Your task to perform on an android device: install app "Spotify: Music and Podcasts" Image 0: 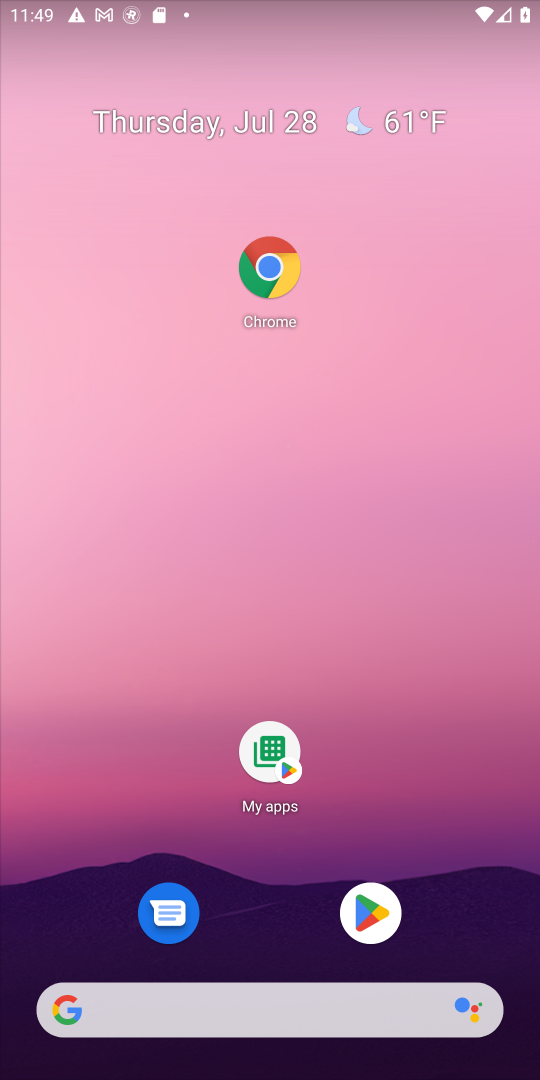
Step 0: press home button
Your task to perform on an android device: install app "Spotify: Music and Podcasts" Image 1: 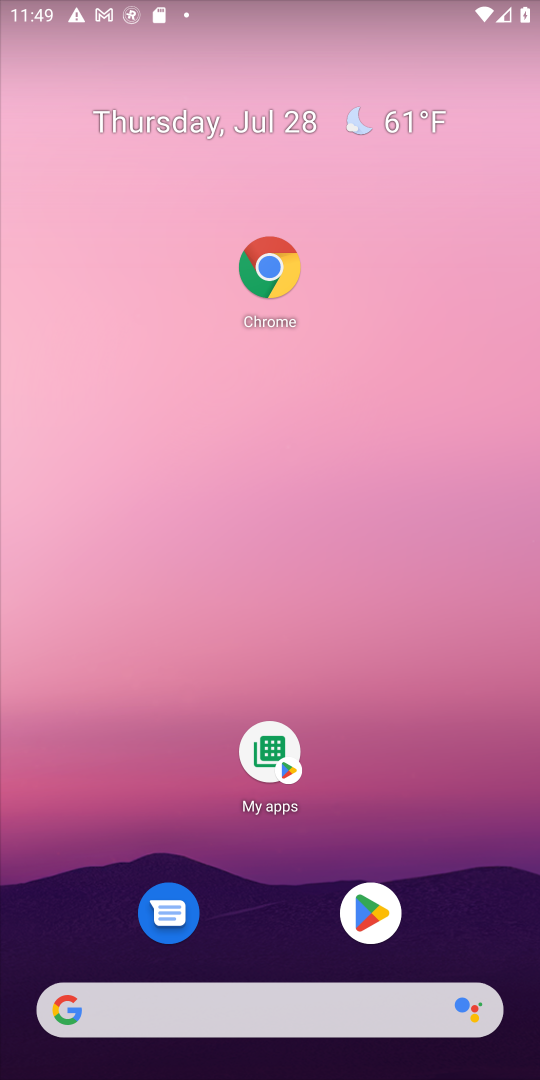
Step 1: click (412, 915)
Your task to perform on an android device: install app "Spotify: Music and Podcasts" Image 2: 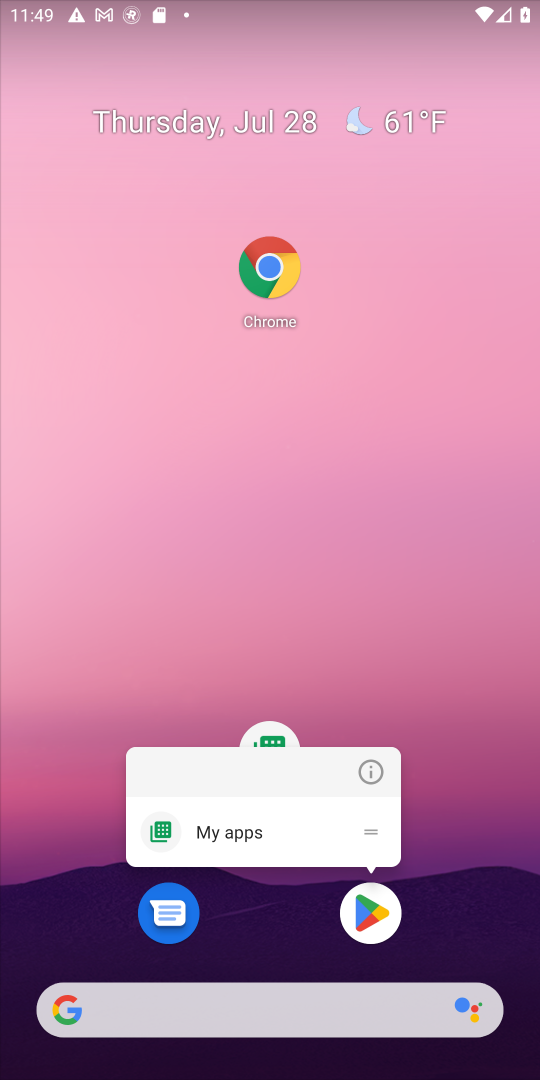
Step 2: click (373, 923)
Your task to perform on an android device: install app "Spotify: Music and Podcasts" Image 3: 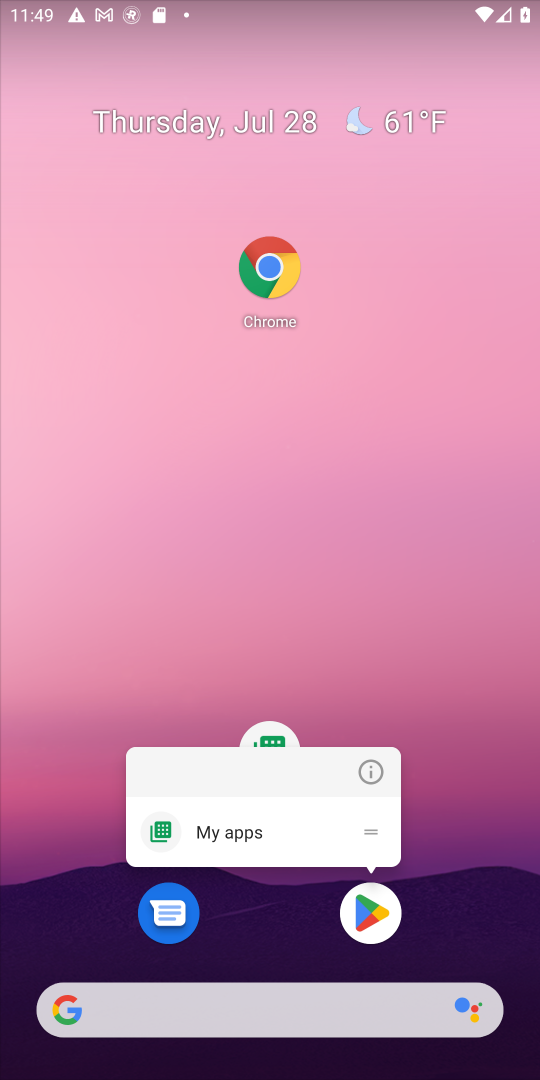
Step 3: click (369, 921)
Your task to perform on an android device: install app "Spotify: Music and Podcasts" Image 4: 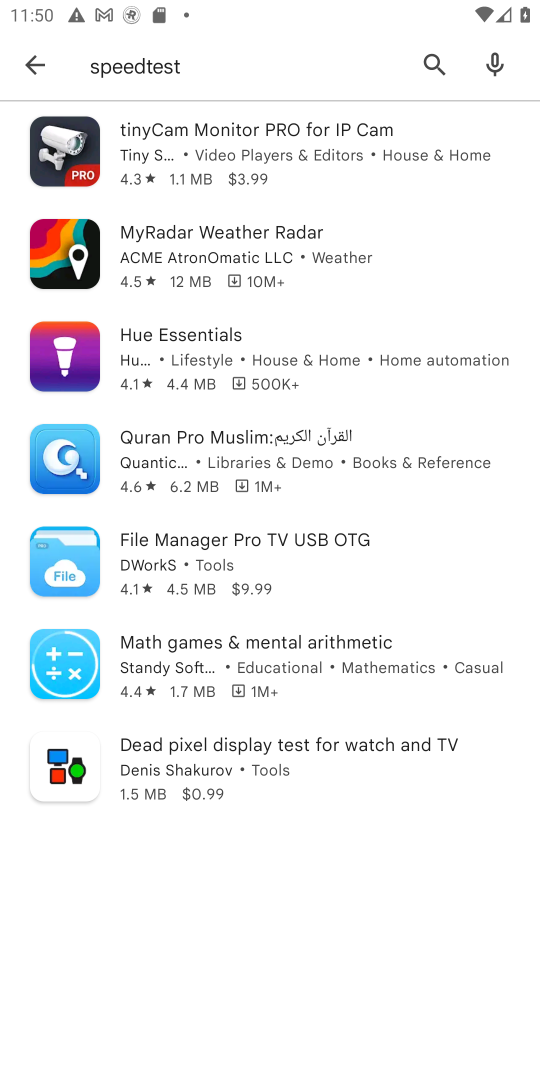
Step 4: click (428, 67)
Your task to perform on an android device: install app "Spotify: Music and Podcasts" Image 5: 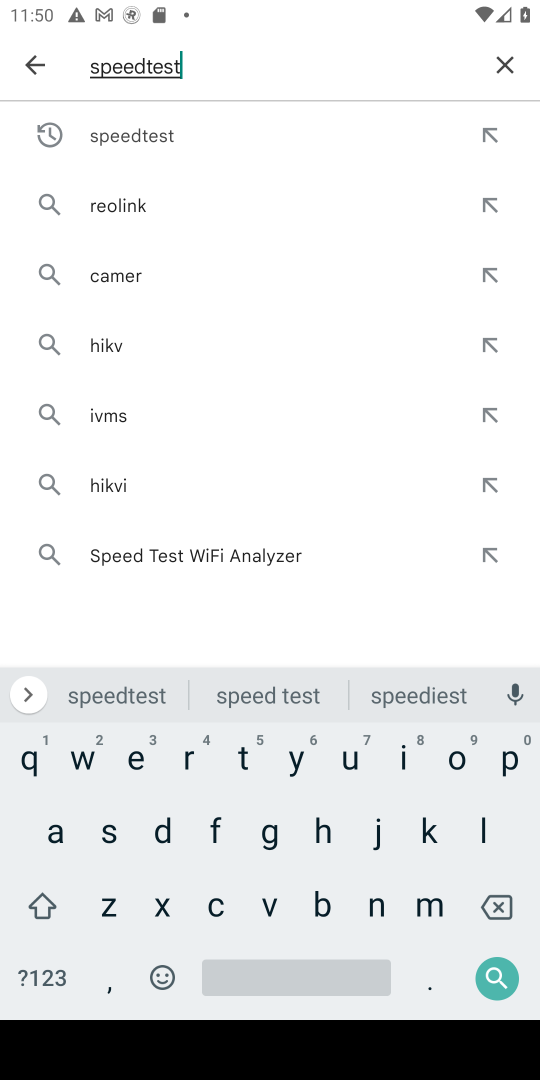
Step 5: click (507, 66)
Your task to perform on an android device: install app "Spotify: Music and Podcasts" Image 6: 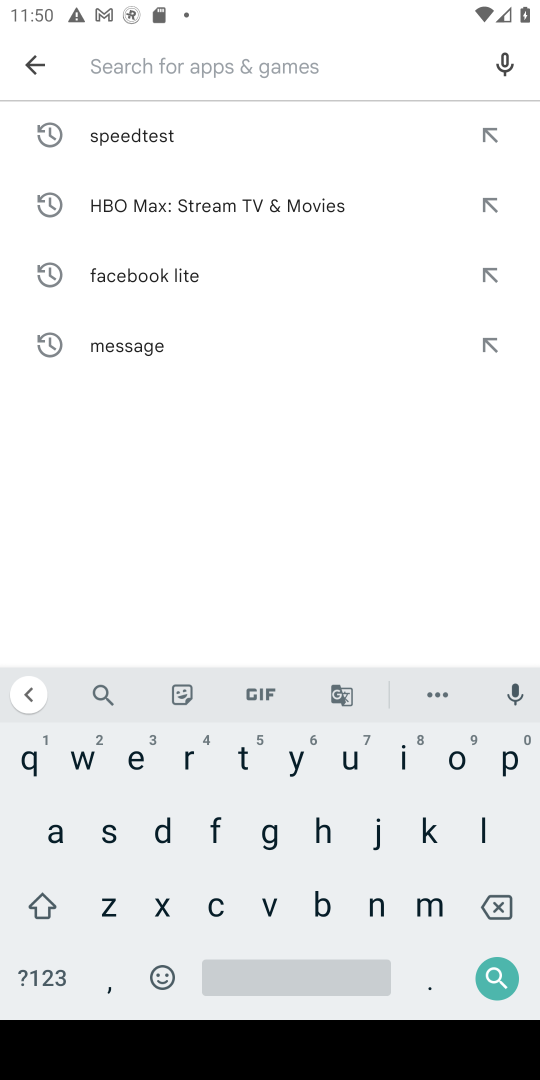
Step 6: click (96, 834)
Your task to perform on an android device: install app "Spotify: Music and Podcasts" Image 7: 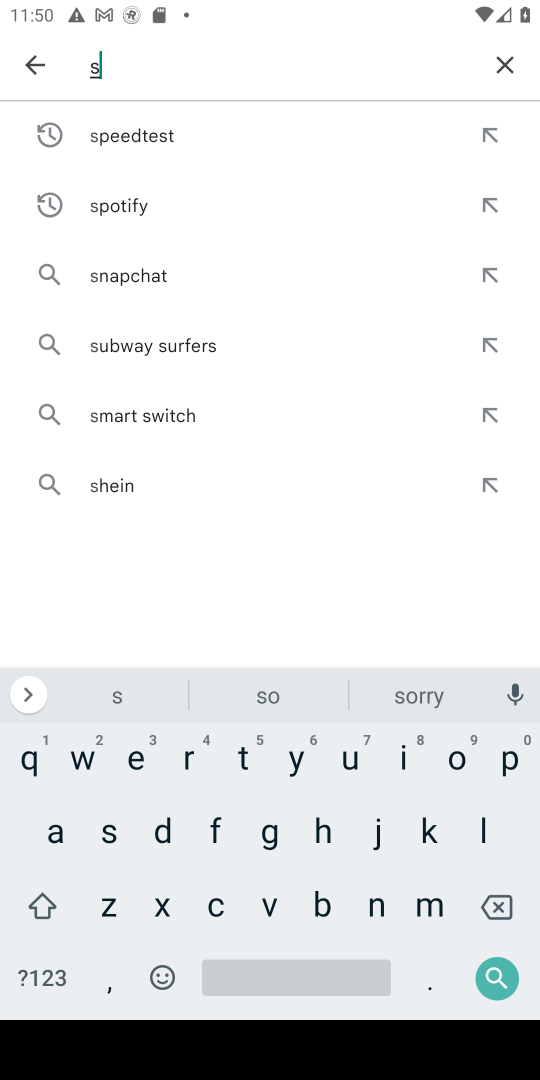
Step 7: click (126, 198)
Your task to perform on an android device: install app "Spotify: Music and Podcasts" Image 8: 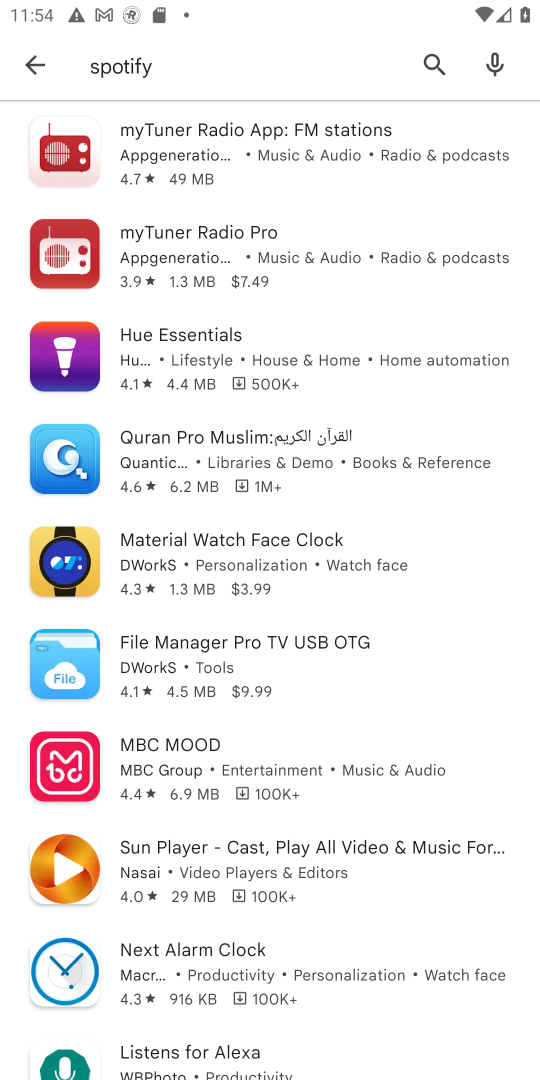
Step 8: task complete